Your task to perform on an android device: Search for pizza restaurants on Maps Image 0: 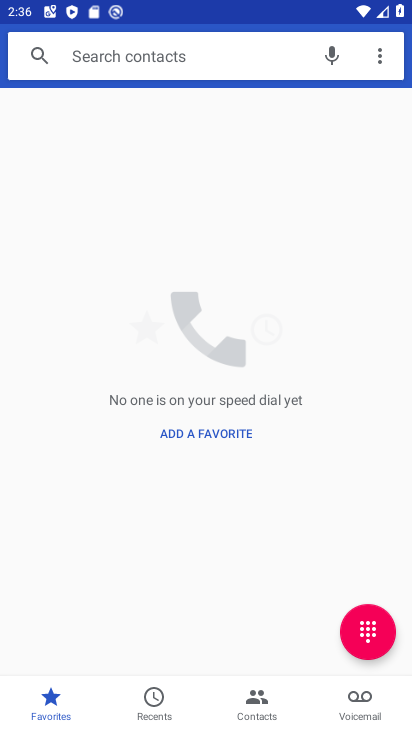
Step 0: press home button
Your task to perform on an android device: Search for pizza restaurants on Maps Image 1: 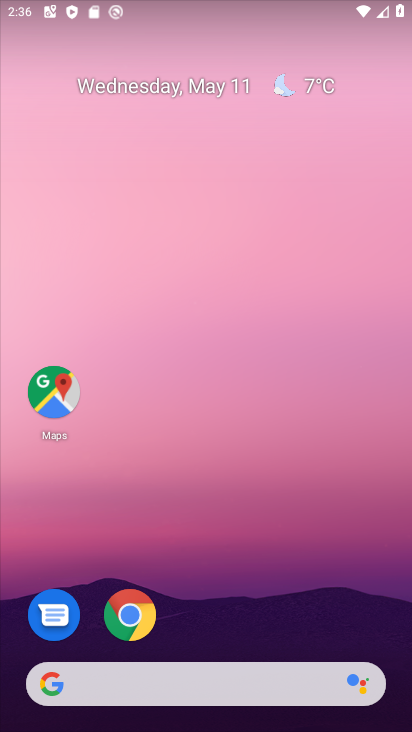
Step 1: click (59, 401)
Your task to perform on an android device: Search for pizza restaurants on Maps Image 2: 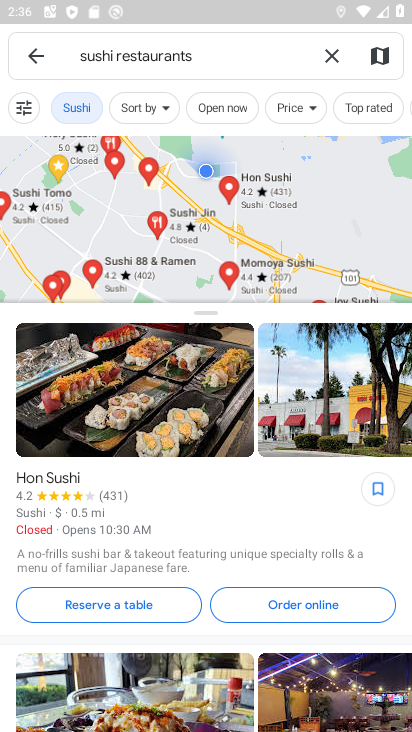
Step 2: click (244, 51)
Your task to perform on an android device: Search for pizza restaurants on Maps Image 3: 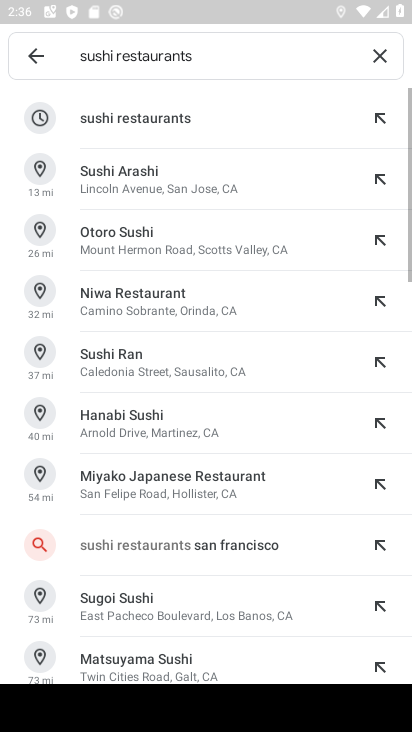
Step 3: click (382, 52)
Your task to perform on an android device: Search for pizza restaurants on Maps Image 4: 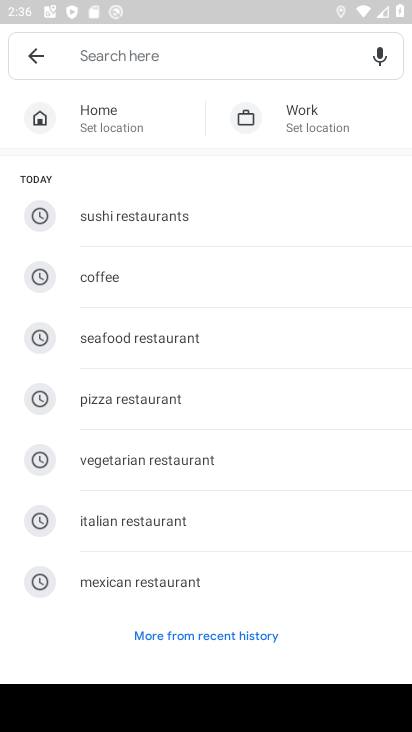
Step 4: type "pizza restaurants"
Your task to perform on an android device: Search for pizza restaurants on Maps Image 5: 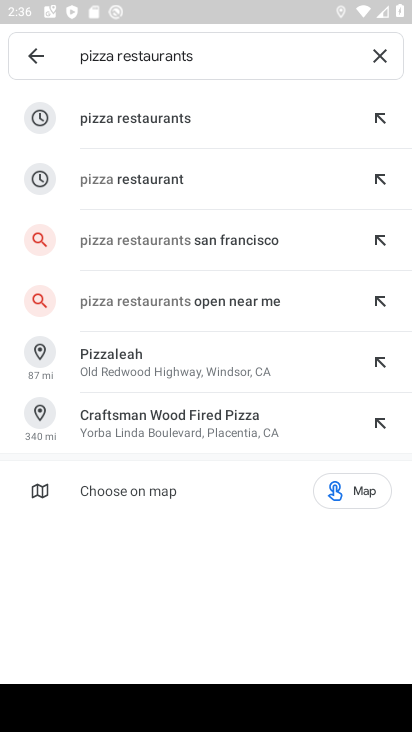
Step 5: click (200, 121)
Your task to perform on an android device: Search for pizza restaurants on Maps Image 6: 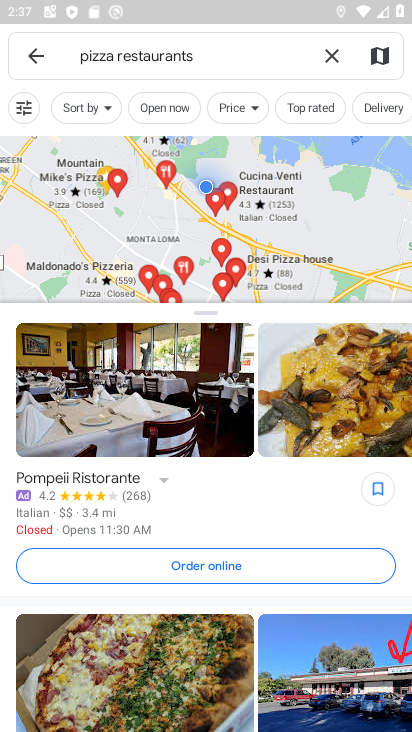
Step 6: task complete